Your task to perform on an android device: Open the phone app and click the voicemail tab. Image 0: 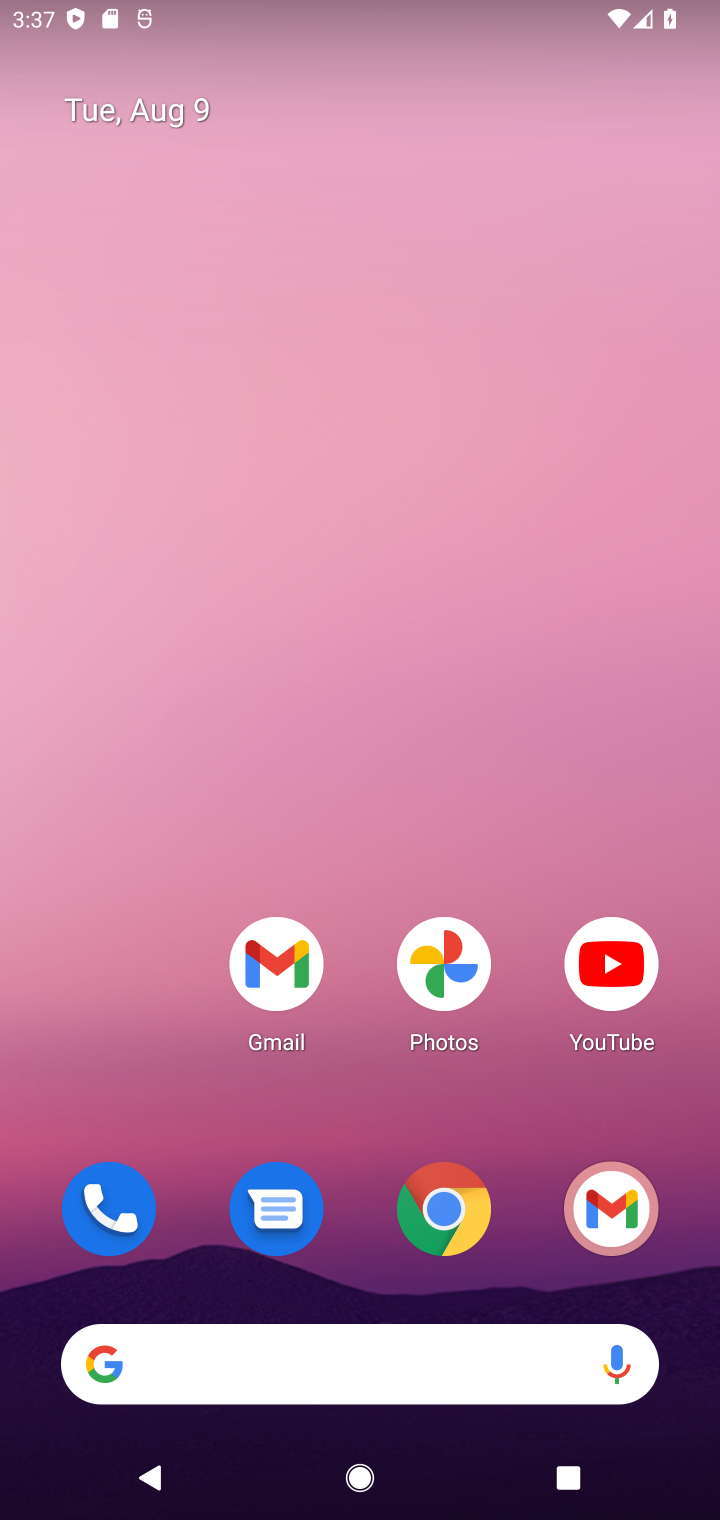
Step 0: drag from (159, 1127) to (138, 74)
Your task to perform on an android device: Open the phone app and click the voicemail tab. Image 1: 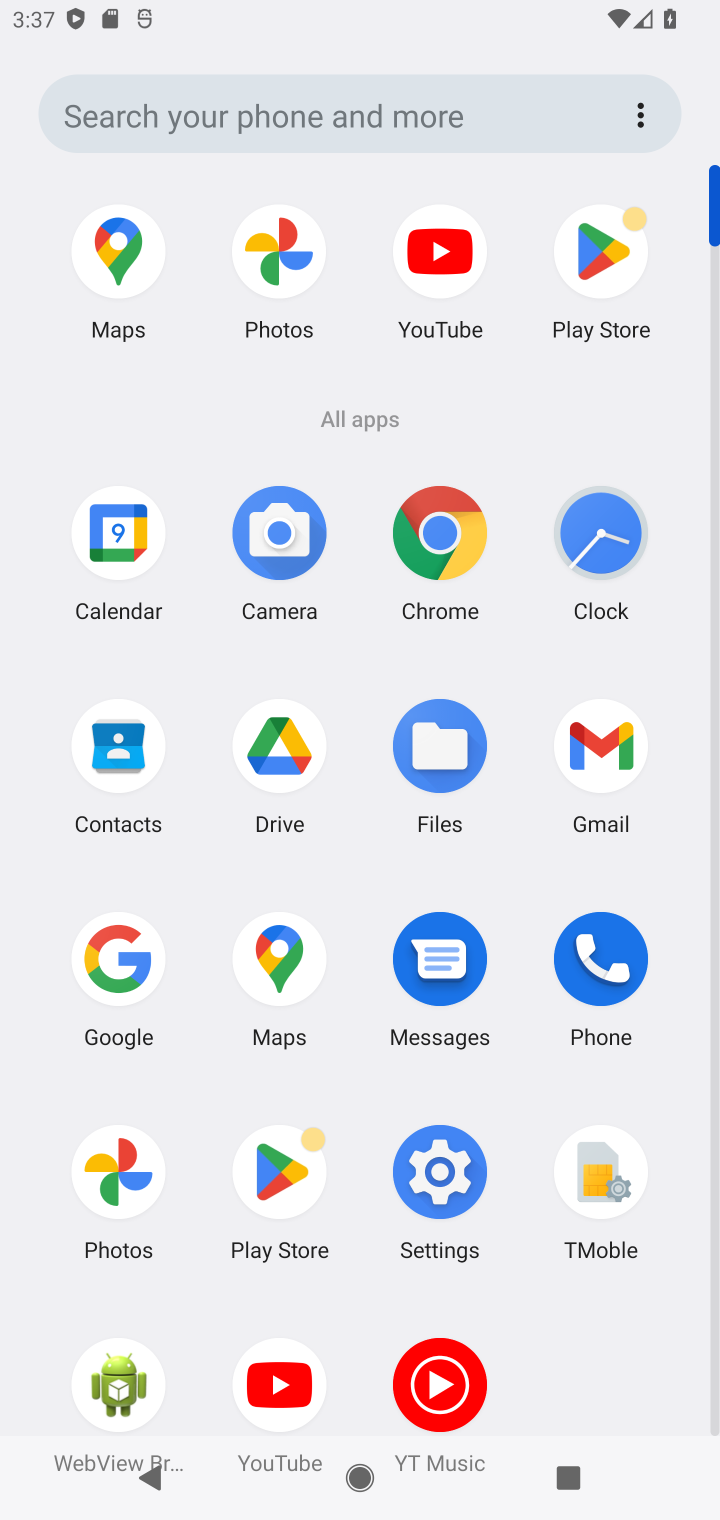
Step 1: click (607, 967)
Your task to perform on an android device: Open the phone app and click the voicemail tab. Image 2: 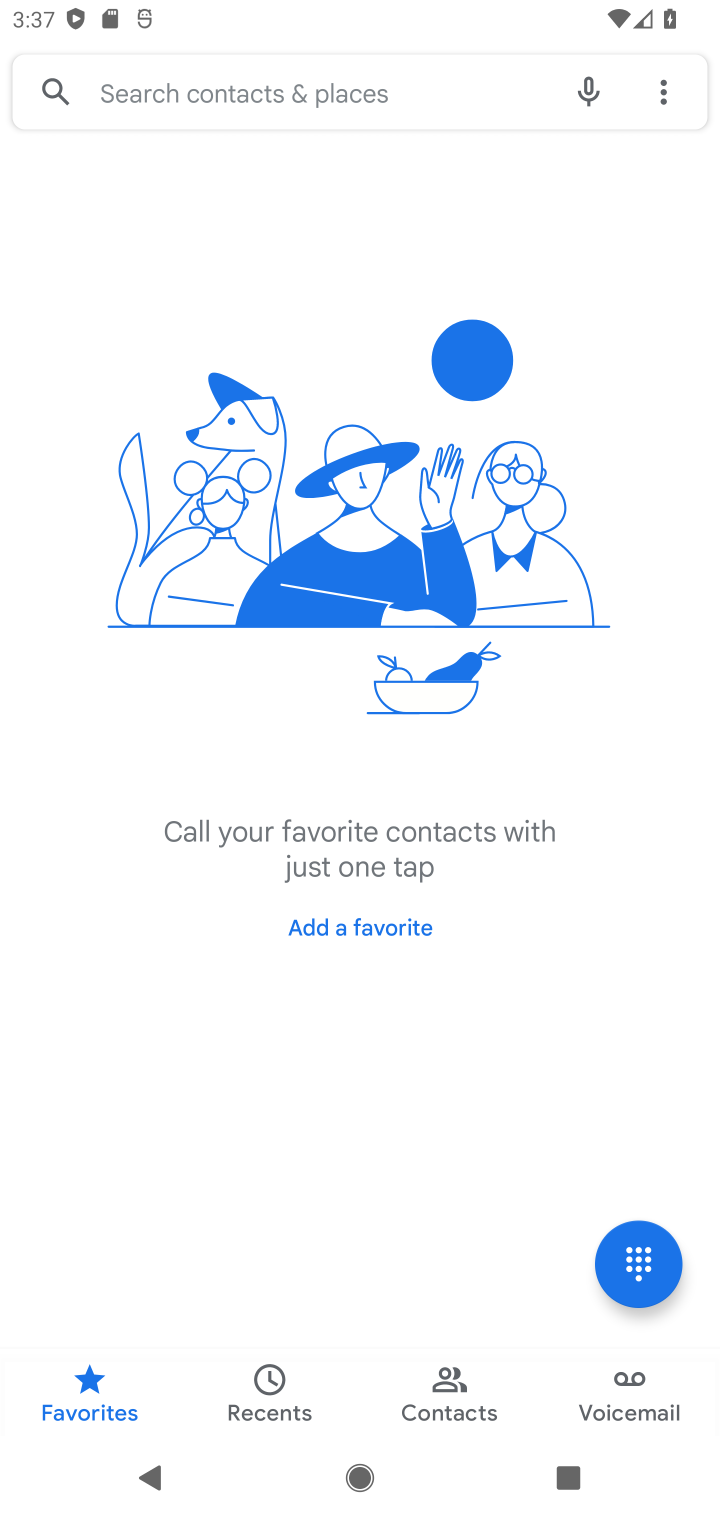
Step 2: click (628, 1398)
Your task to perform on an android device: Open the phone app and click the voicemail tab. Image 3: 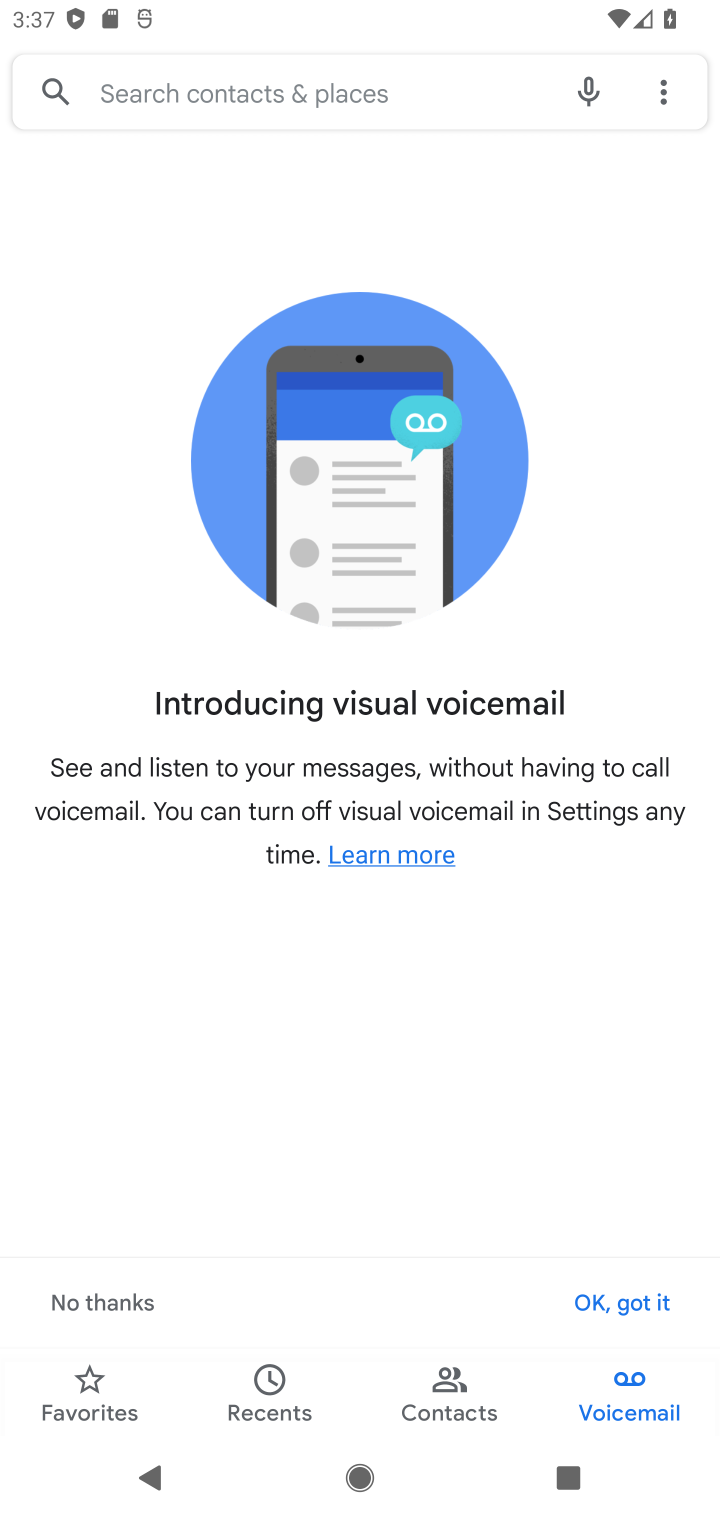
Step 3: click (621, 1302)
Your task to perform on an android device: Open the phone app and click the voicemail tab. Image 4: 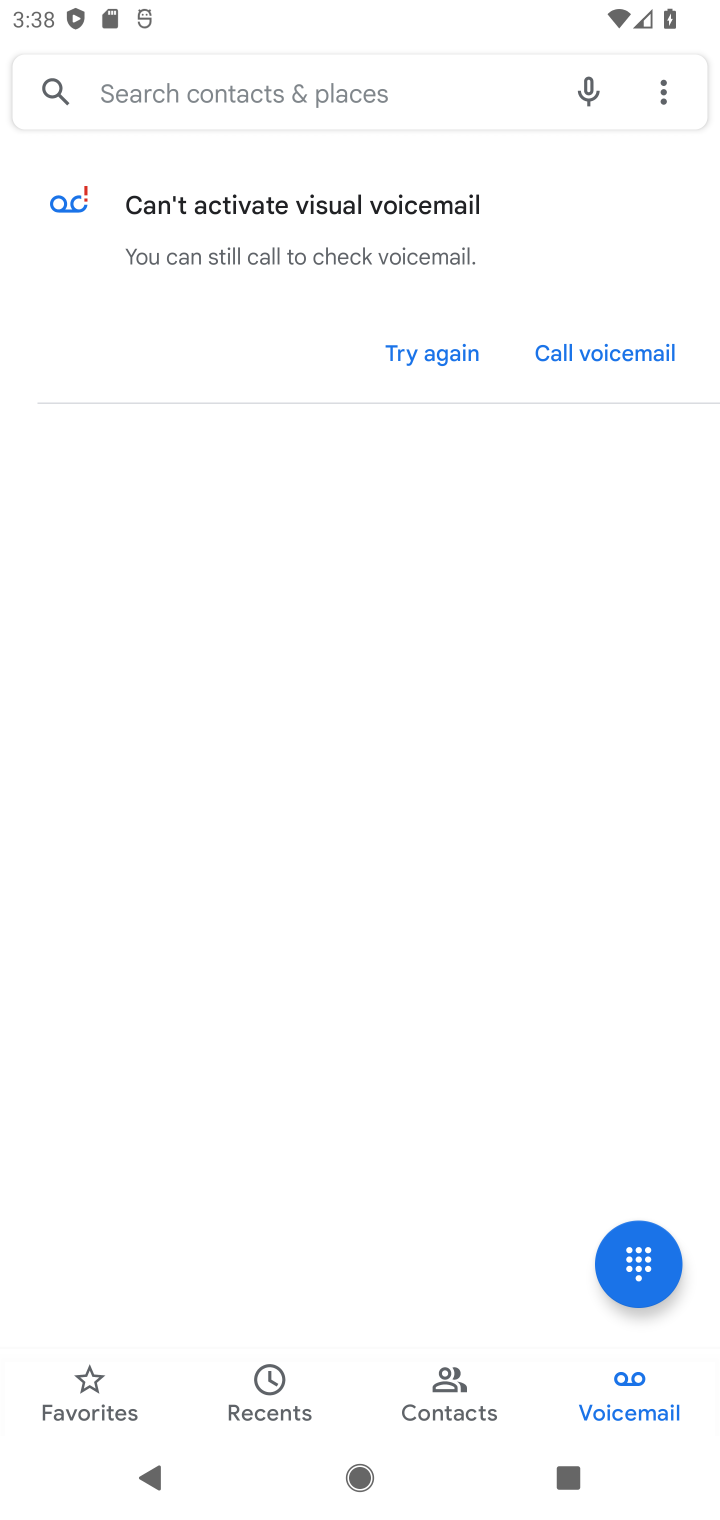
Step 4: task complete